Your task to perform on an android device: Do I have any events tomorrow? Image 0: 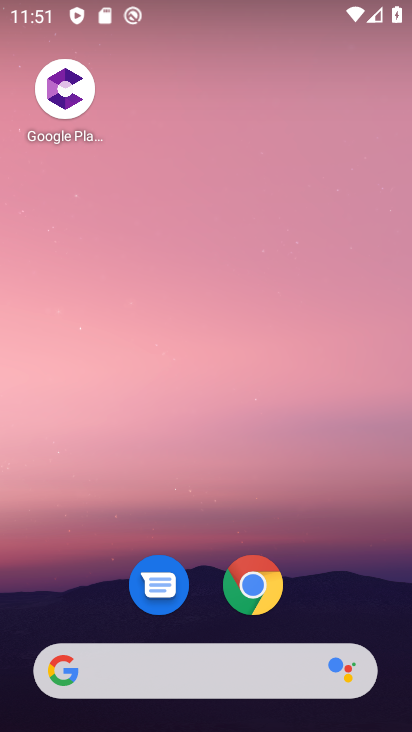
Step 0: drag from (316, 515) to (305, 39)
Your task to perform on an android device: Do I have any events tomorrow? Image 1: 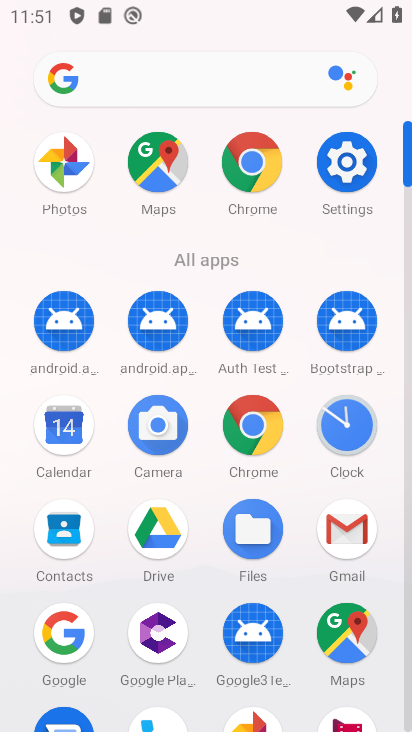
Step 1: click (72, 427)
Your task to perform on an android device: Do I have any events tomorrow? Image 2: 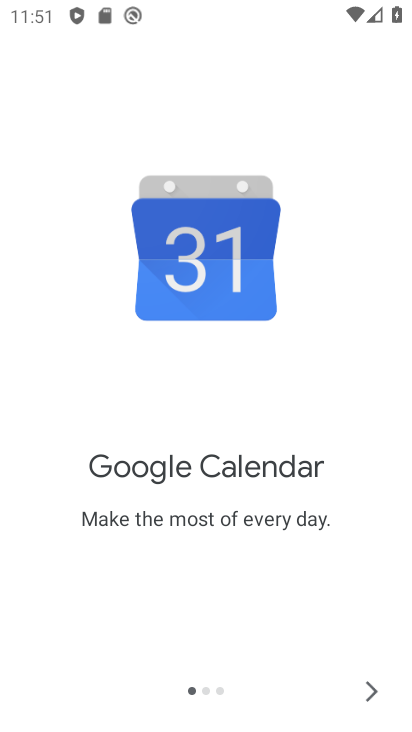
Step 2: click (371, 695)
Your task to perform on an android device: Do I have any events tomorrow? Image 3: 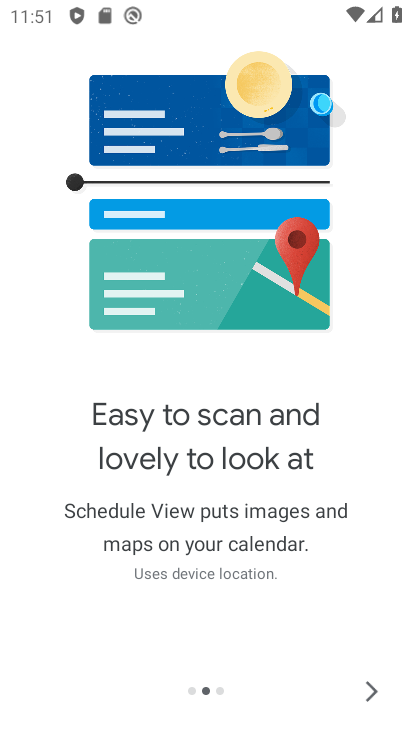
Step 3: click (371, 694)
Your task to perform on an android device: Do I have any events tomorrow? Image 4: 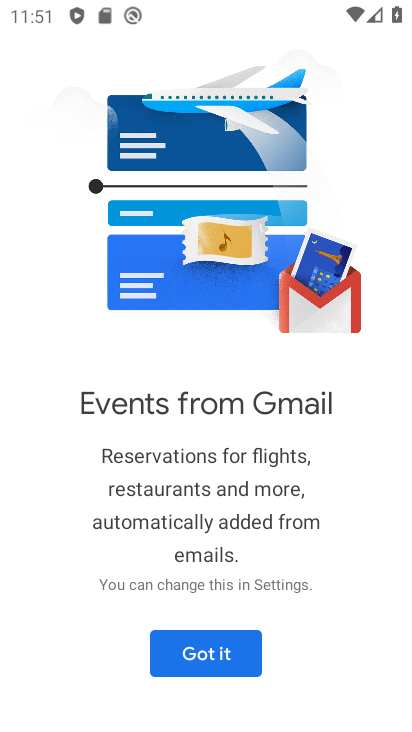
Step 4: click (257, 650)
Your task to perform on an android device: Do I have any events tomorrow? Image 5: 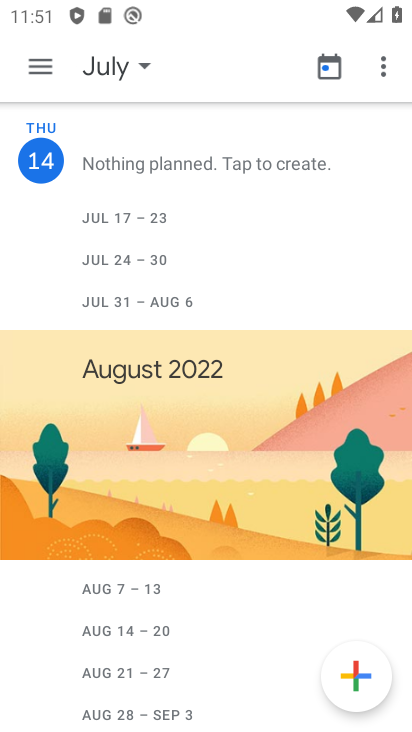
Step 5: click (44, 63)
Your task to perform on an android device: Do I have any events tomorrow? Image 6: 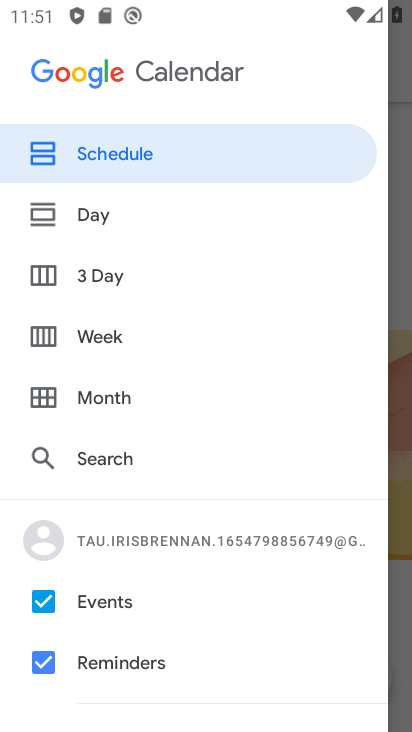
Step 6: click (68, 268)
Your task to perform on an android device: Do I have any events tomorrow? Image 7: 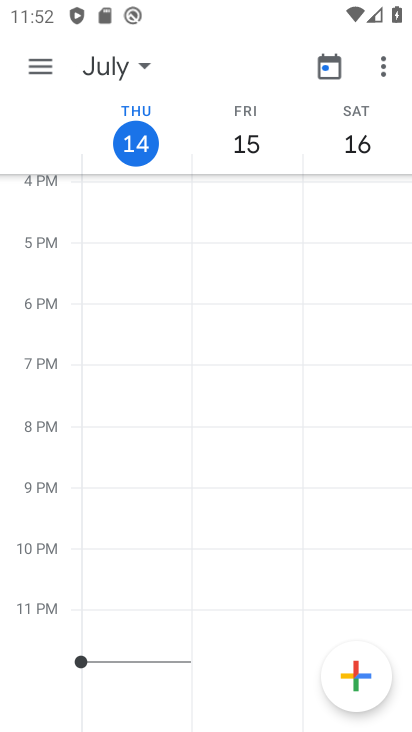
Step 7: task complete